Your task to perform on an android device: Open Android settings Image 0: 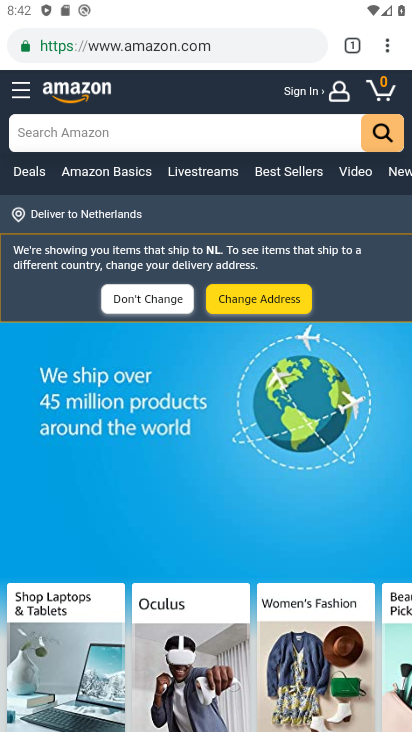
Step 0: press home button
Your task to perform on an android device: Open Android settings Image 1: 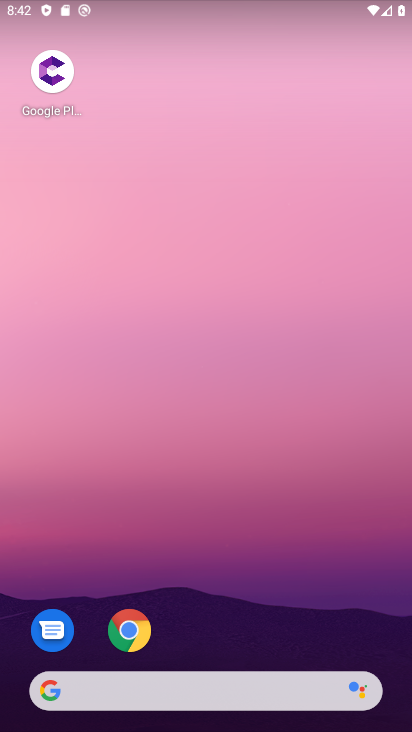
Step 1: drag from (357, 604) to (383, 245)
Your task to perform on an android device: Open Android settings Image 2: 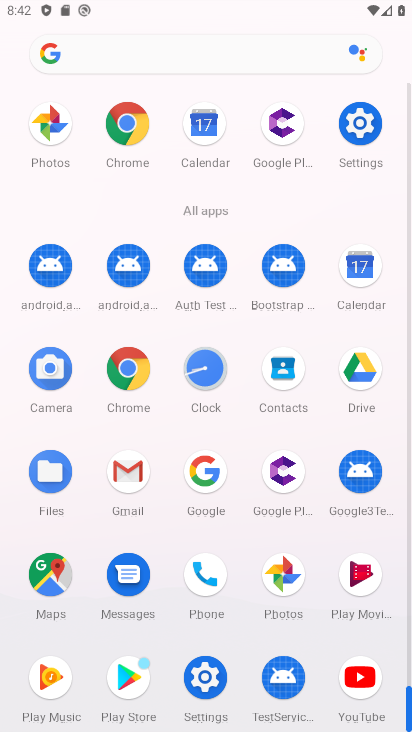
Step 2: click (354, 143)
Your task to perform on an android device: Open Android settings Image 3: 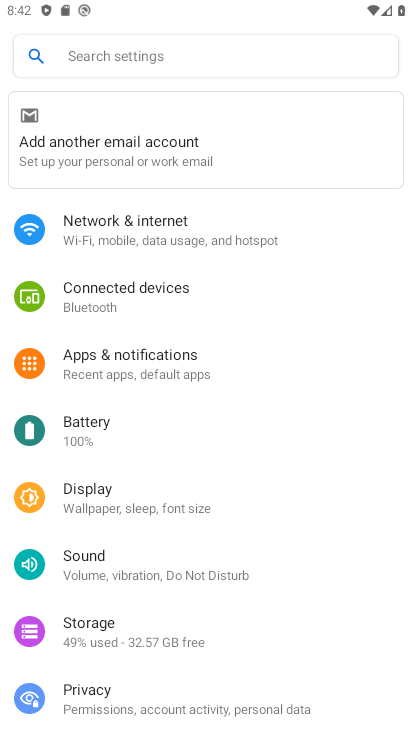
Step 3: drag from (355, 604) to (375, 408)
Your task to perform on an android device: Open Android settings Image 4: 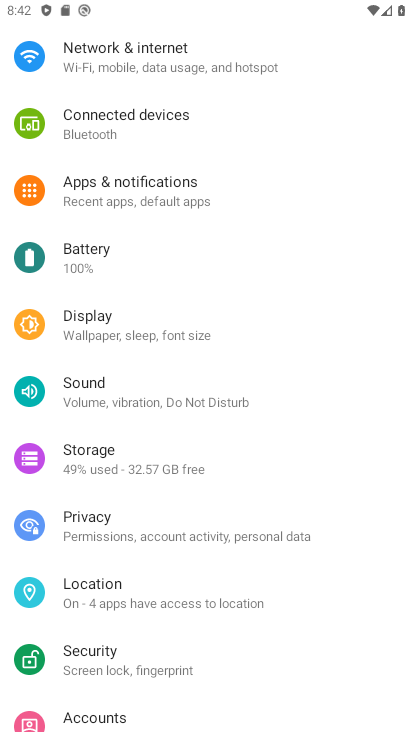
Step 4: drag from (370, 641) to (353, 482)
Your task to perform on an android device: Open Android settings Image 5: 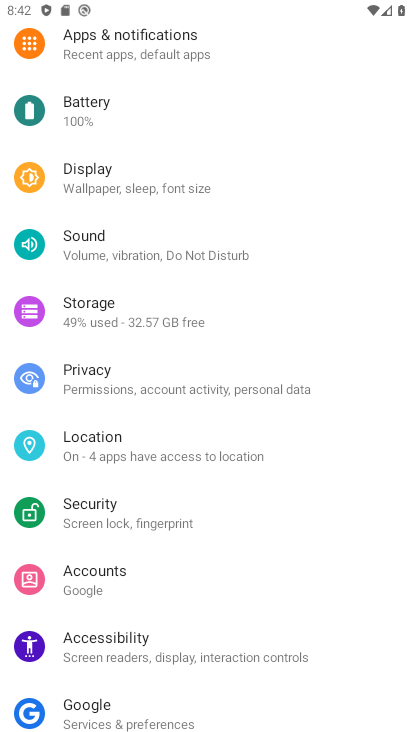
Step 5: drag from (353, 653) to (359, 493)
Your task to perform on an android device: Open Android settings Image 6: 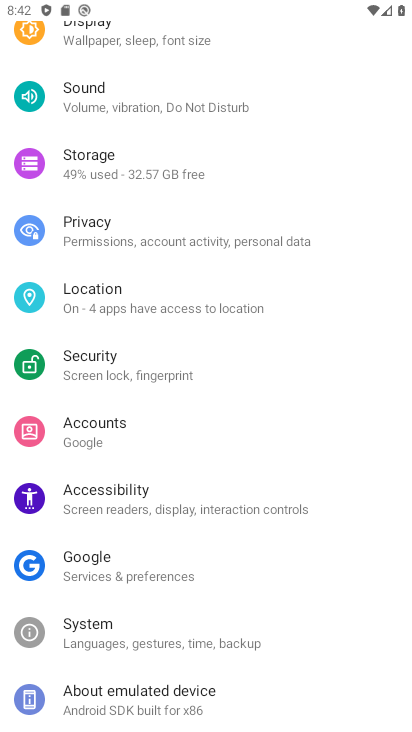
Step 6: drag from (345, 648) to (344, 498)
Your task to perform on an android device: Open Android settings Image 7: 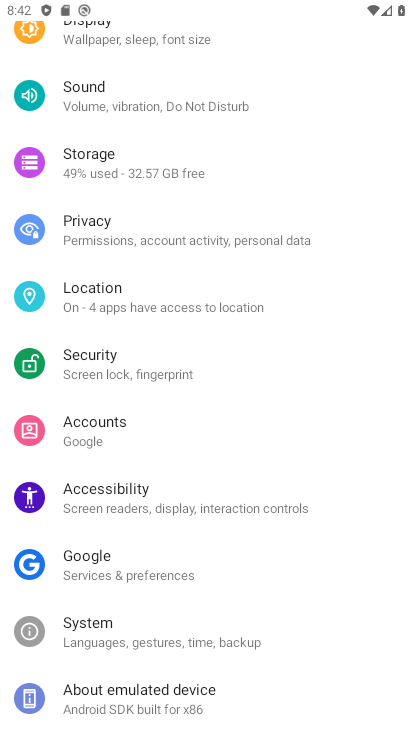
Step 7: drag from (378, 369) to (352, 486)
Your task to perform on an android device: Open Android settings Image 8: 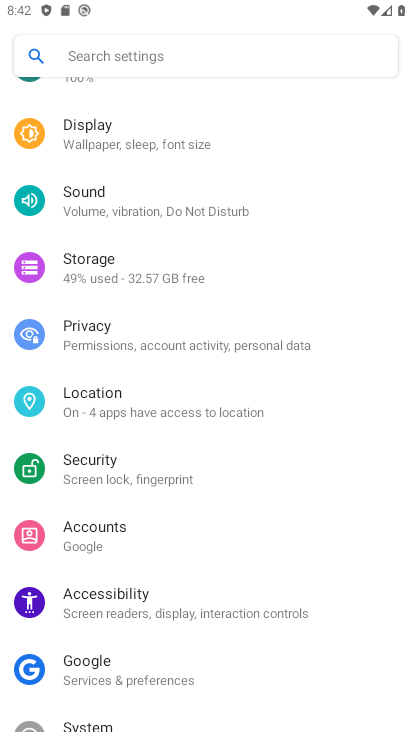
Step 8: drag from (351, 273) to (336, 421)
Your task to perform on an android device: Open Android settings Image 9: 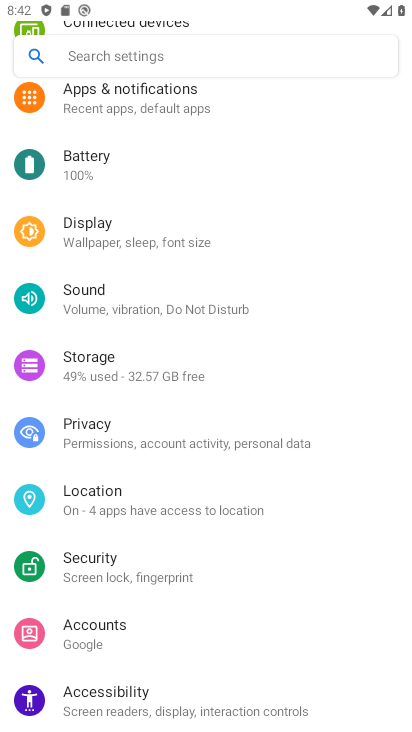
Step 9: drag from (328, 194) to (299, 346)
Your task to perform on an android device: Open Android settings Image 10: 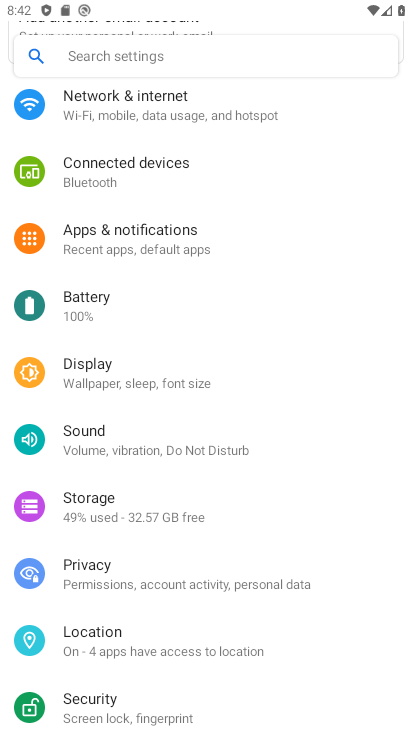
Step 10: drag from (340, 217) to (329, 366)
Your task to perform on an android device: Open Android settings Image 11: 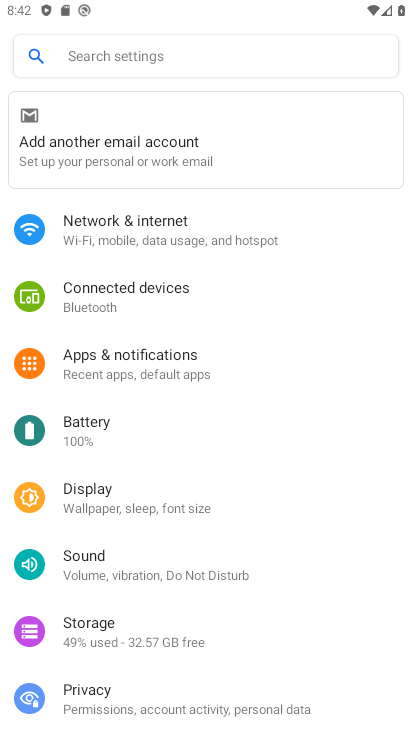
Step 11: drag from (329, 557) to (324, 384)
Your task to perform on an android device: Open Android settings Image 12: 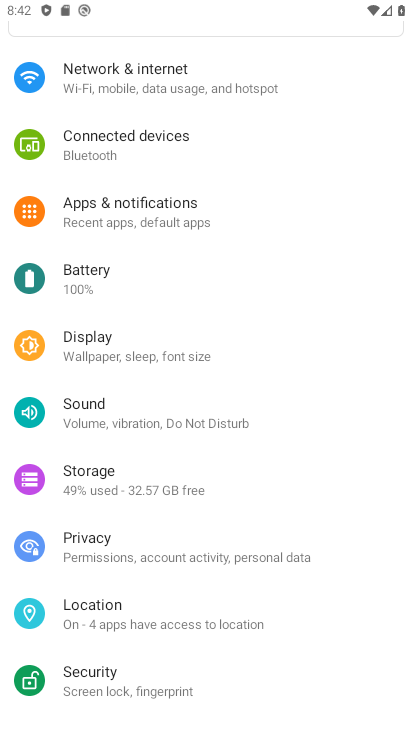
Step 12: drag from (353, 618) to (359, 450)
Your task to perform on an android device: Open Android settings Image 13: 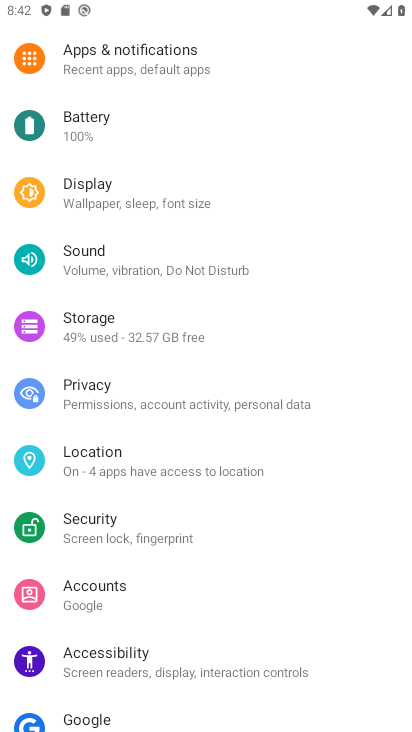
Step 13: drag from (322, 624) to (319, 476)
Your task to perform on an android device: Open Android settings Image 14: 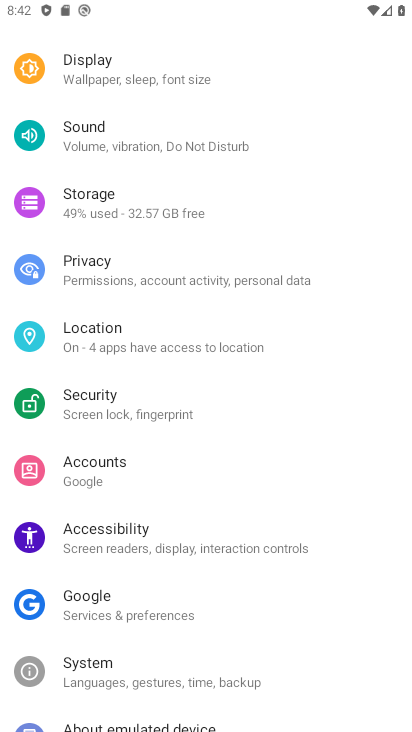
Step 14: drag from (321, 630) to (329, 487)
Your task to perform on an android device: Open Android settings Image 15: 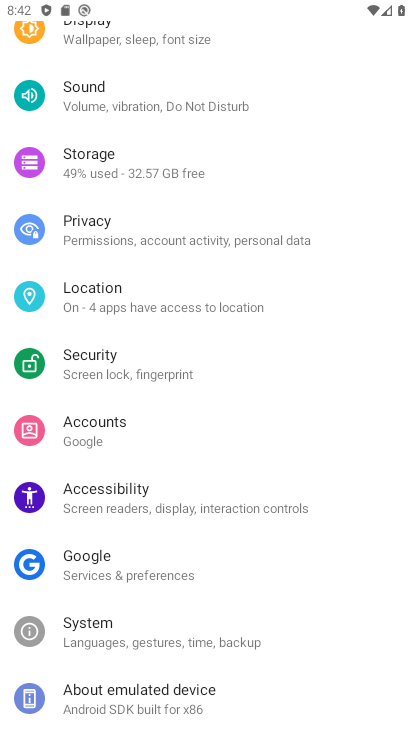
Step 15: click (240, 639)
Your task to perform on an android device: Open Android settings Image 16: 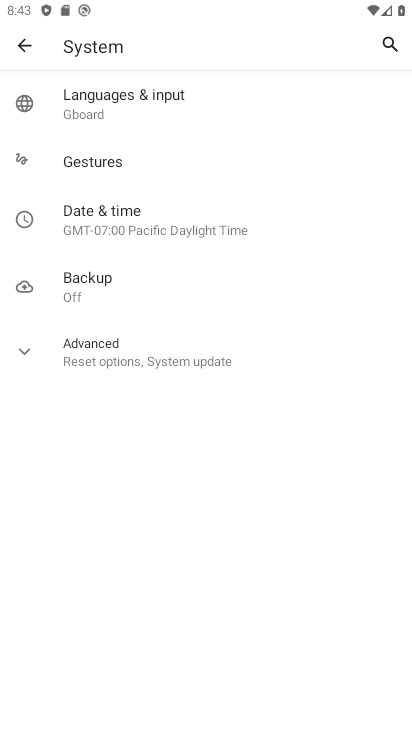
Step 16: click (179, 362)
Your task to perform on an android device: Open Android settings Image 17: 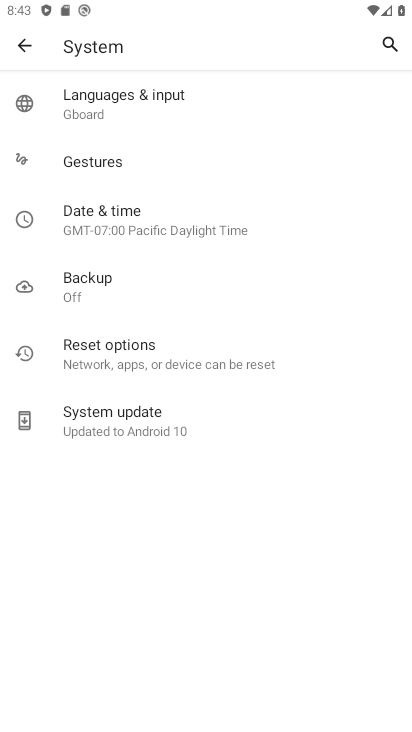
Step 17: click (173, 425)
Your task to perform on an android device: Open Android settings Image 18: 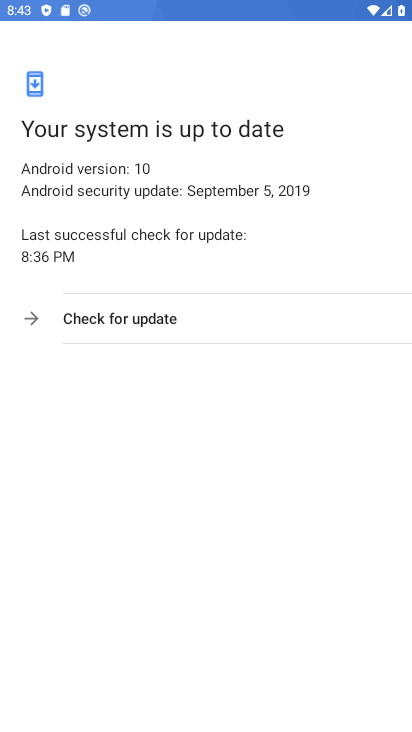
Step 18: task complete